Your task to perform on an android device: Clear the shopping cart on amazon. Image 0: 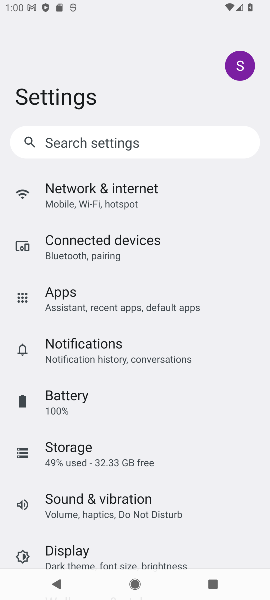
Step 0: press home button
Your task to perform on an android device: Clear the shopping cart on amazon. Image 1: 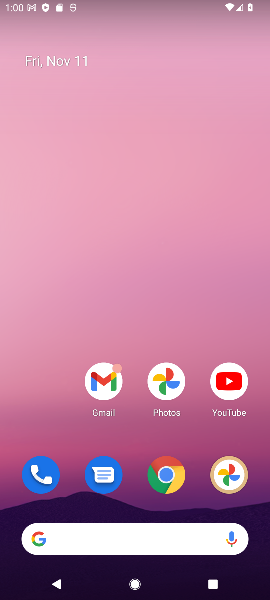
Step 1: drag from (88, 480) to (186, 50)
Your task to perform on an android device: Clear the shopping cart on amazon. Image 2: 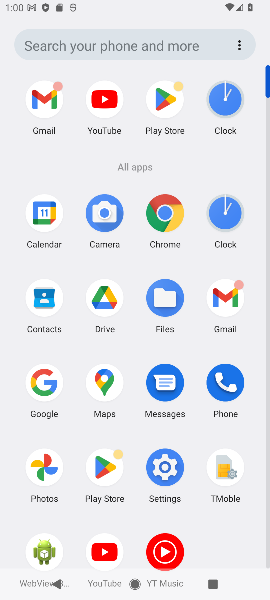
Step 2: click (173, 209)
Your task to perform on an android device: Clear the shopping cart on amazon. Image 3: 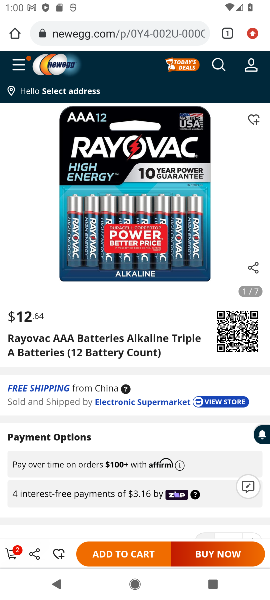
Step 3: click (76, 29)
Your task to perform on an android device: Clear the shopping cart on amazon. Image 4: 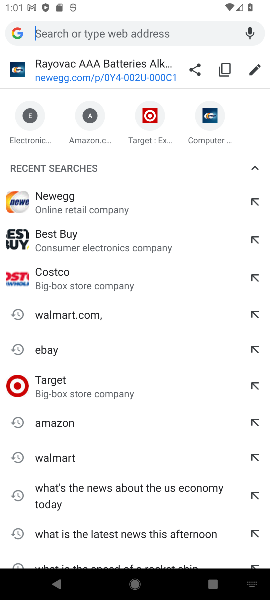
Step 4: type "amazon"
Your task to perform on an android device: Clear the shopping cart on amazon. Image 5: 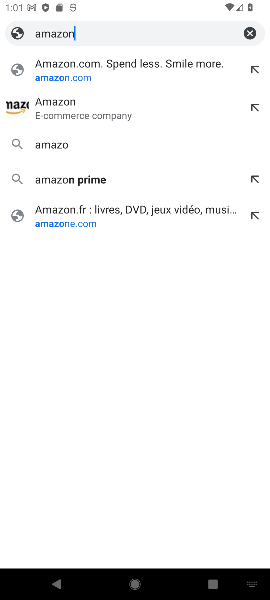
Step 5: press enter
Your task to perform on an android device: Clear the shopping cart on amazon. Image 6: 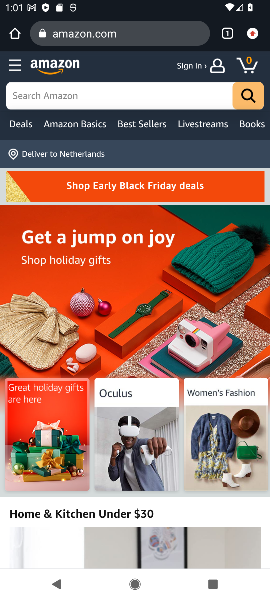
Step 6: click (91, 92)
Your task to perform on an android device: Clear the shopping cart on amazon. Image 7: 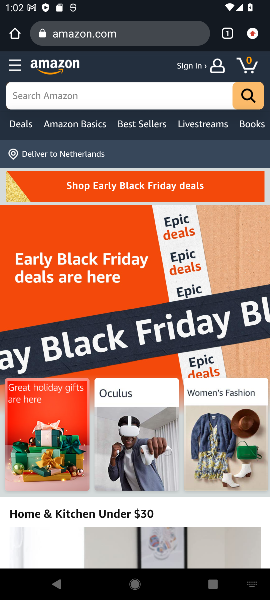
Step 7: task complete